Your task to perform on an android device: Search for seafood restaurants on Google Maps Image 0: 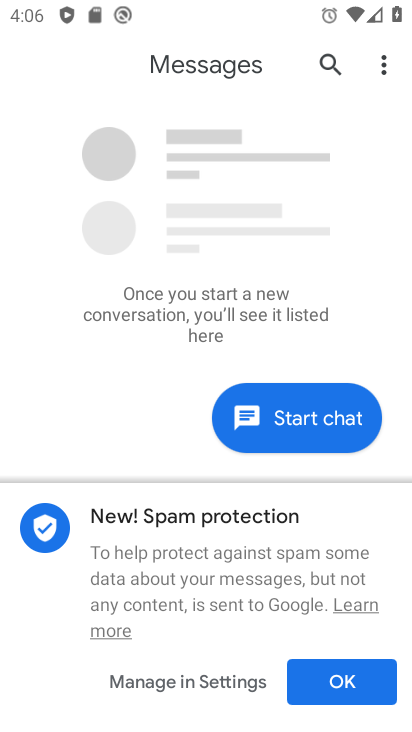
Step 0: press home button
Your task to perform on an android device: Search for seafood restaurants on Google Maps Image 1: 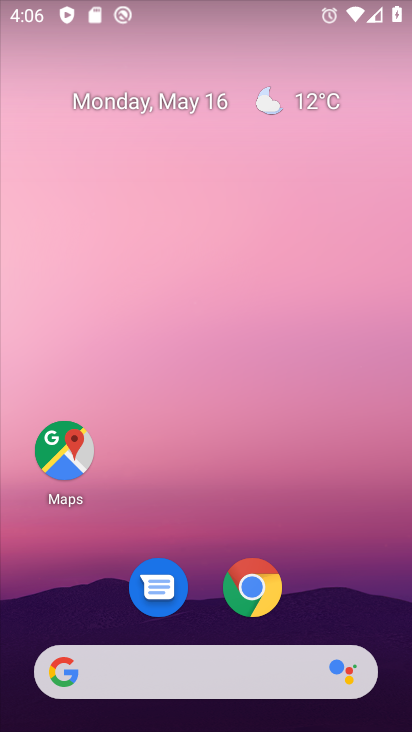
Step 1: click (74, 455)
Your task to perform on an android device: Search for seafood restaurants on Google Maps Image 2: 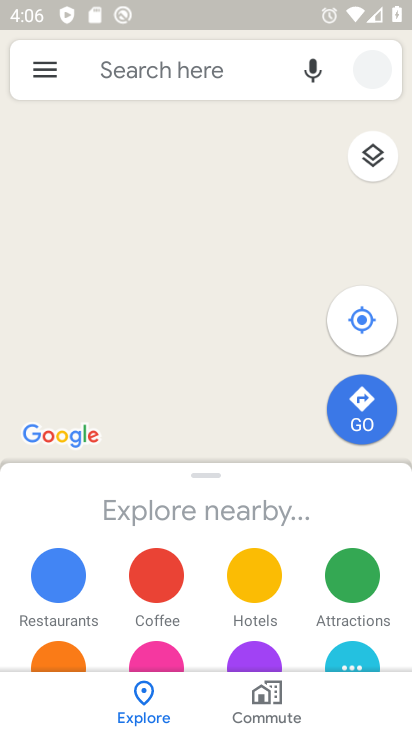
Step 2: click (220, 73)
Your task to perform on an android device: Search for seafood restaurants on Google Maps Image 3: 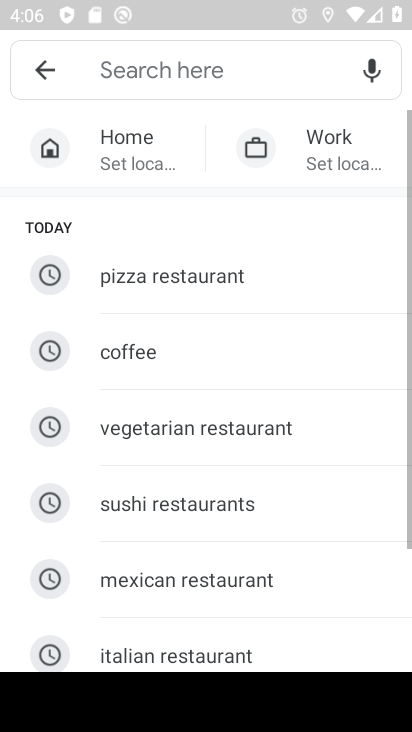
Step 3: click (139, 65)
Your task to perform on an android device: Search for seafood restaurants on Google Maps Image 4: 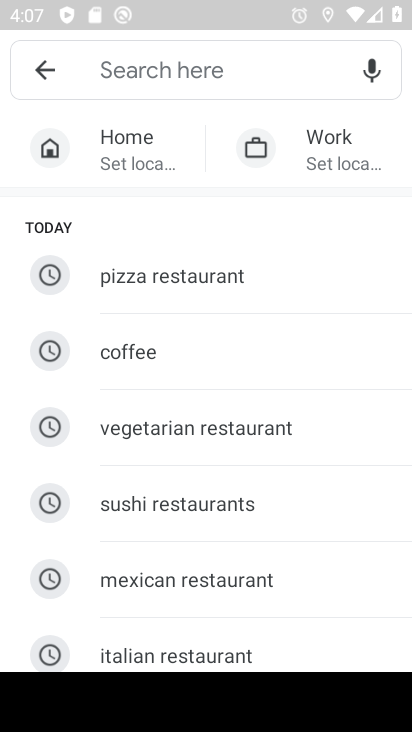
Step 4: type "seafood restaurants"
Your task to perform on an android device: Search for seafood restaurants on Google Maps Image 5: 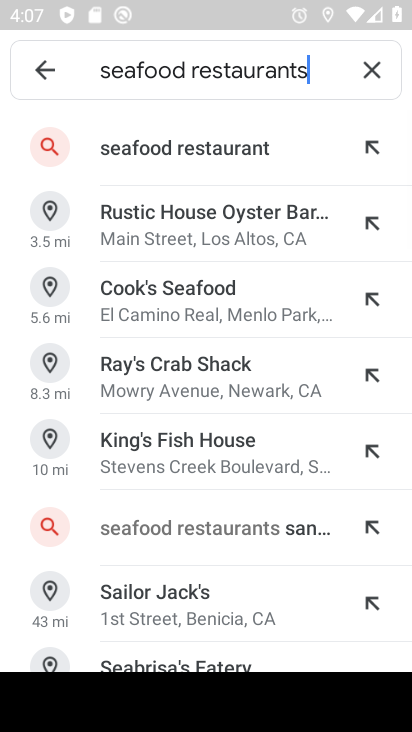
Step 5: click (193, 151)
Your task to perform on an android device: Search for seafood restaurants on Google Maps Image 6: 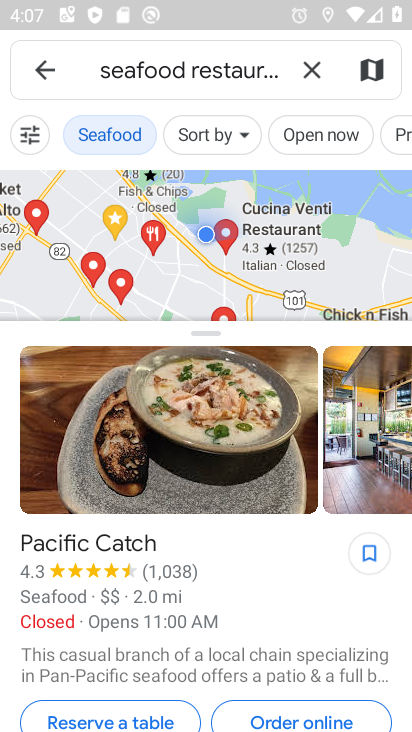
Step 6: task complete